Your task to perform on an android device: toggle show notifications on the lock screen Image 0: 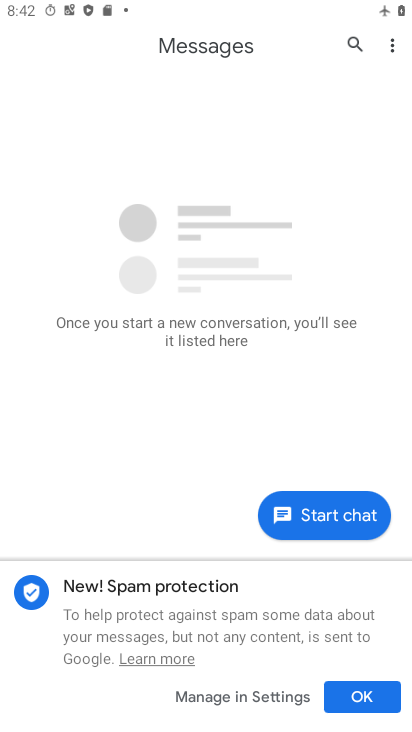
Step 0: press home button
Your task to perform on an android device: toggle show notifications on the lock screen Image 1: 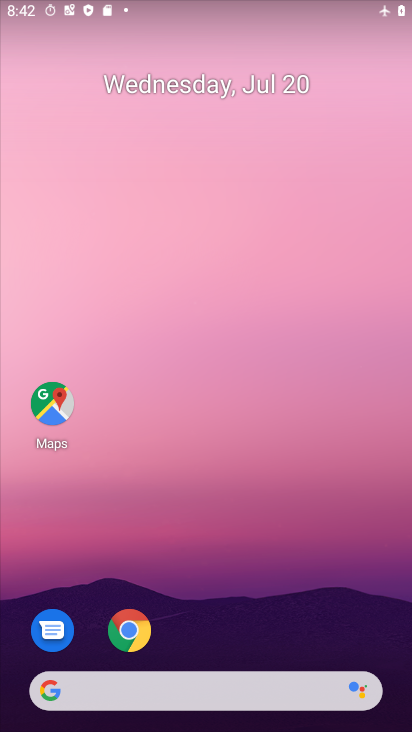
Step 1: drag from (276, 648) to (277, 253)
Your task to perform on an android device: toggle show notifications on the lock screen Image 2: 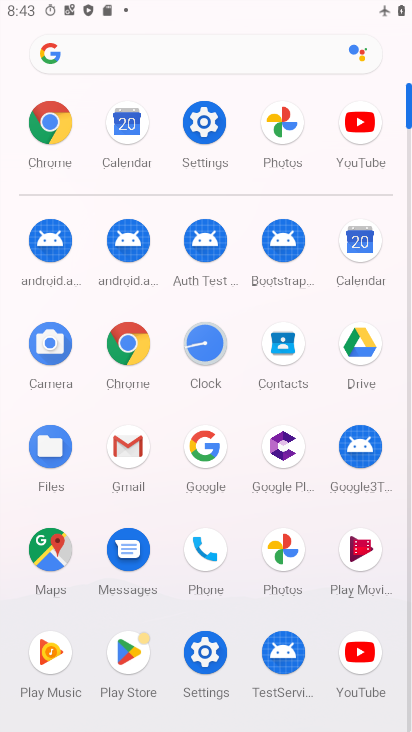
Step 2: click (205, 128)
Your task to perform on an android device: toggle show notifications on the lock screen Image 3: 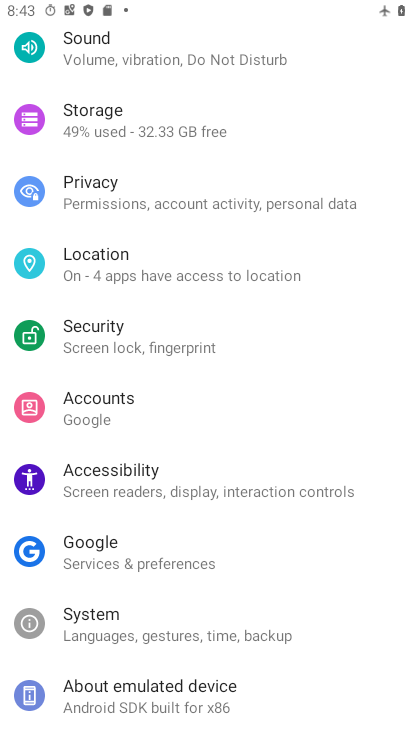
Step 3: drag from (215, 174) to (185, 510)
Your task to perform on an android device: toggle show notifications on the lock screen Image 4: 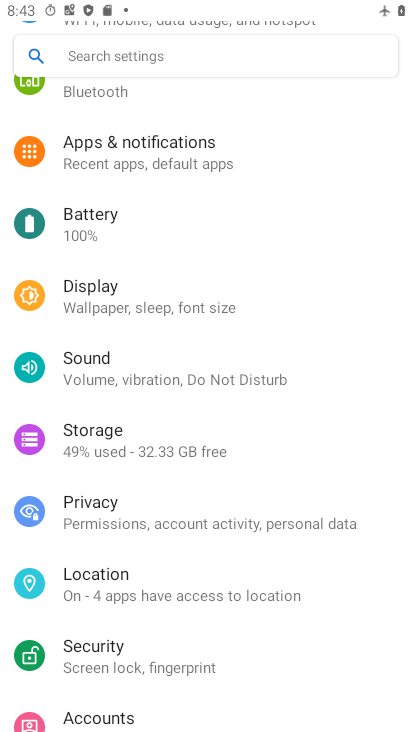
Step 4: click (155, 163)
Your task to perform on an android device: toggle show notifications on the lock screen Image 5: 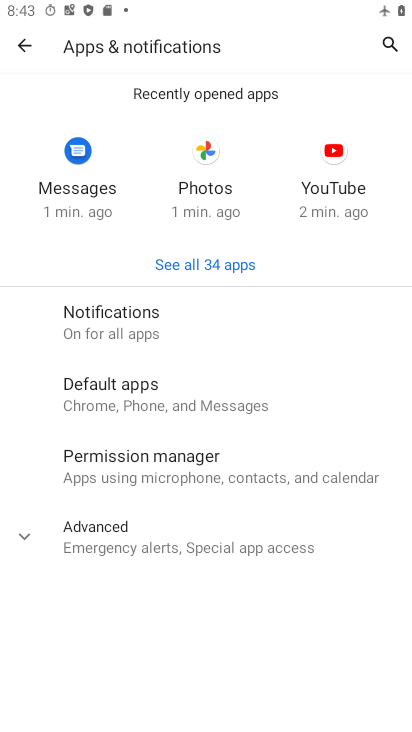
Step 5: click (204, 323)
Your task to perform on an android device: toggle show notifications on the lock screen Image 6: 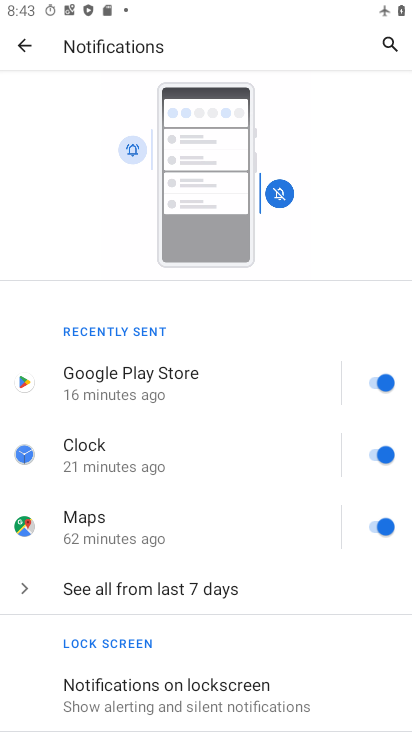
Step 6: click (214, 694)
Your task to perform on an android device: toggle show notifications on the lock screen Image 7: 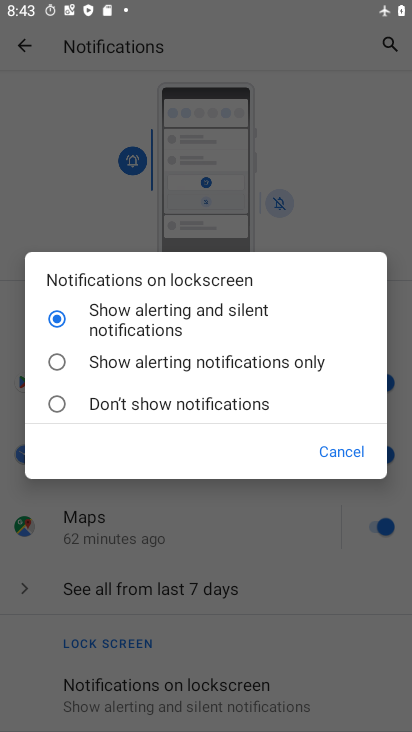
Step 7: click (53, 411)
Your task to perform on an android device: toggle show notifications on the lock screen Image 8: 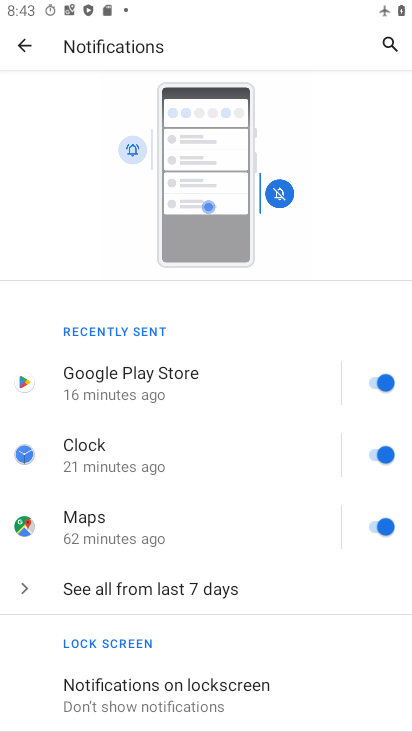
Step 8: task complete